Your task to perform on an android device: open a new tab in the chrome app Image 0: 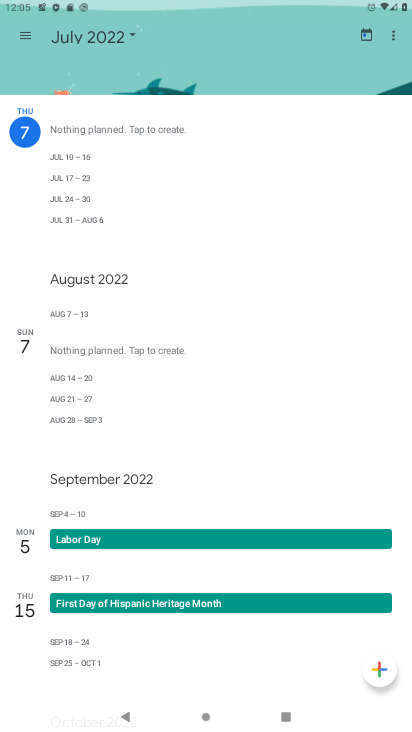
Step 0: press home button
Your task to perform on an android device: open a new tab in the chrome app Image 1: 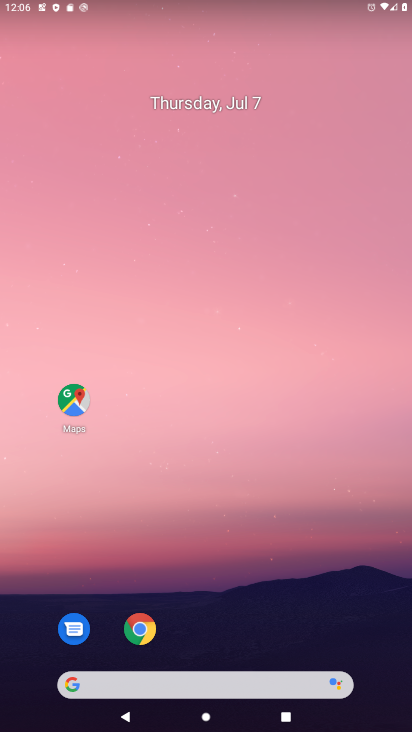
Step 1: click (150, 631)
Your task to perform on an android device: open a new tab in the chrome app Image 2: 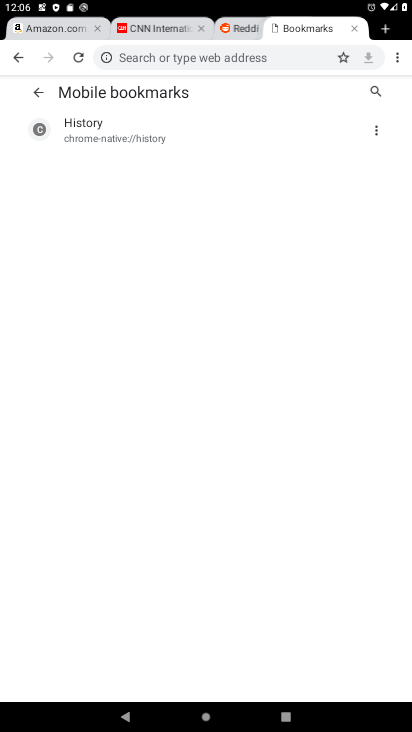
Step 2: task complete